Your task to perform on an android device: Go to Maps Image 0: 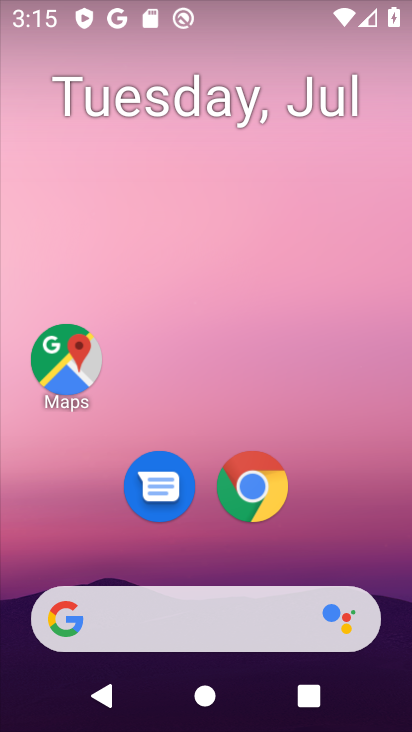
Step 0: click (64, 366)
Your task to perform on an android device: Go to Maps Image 1: 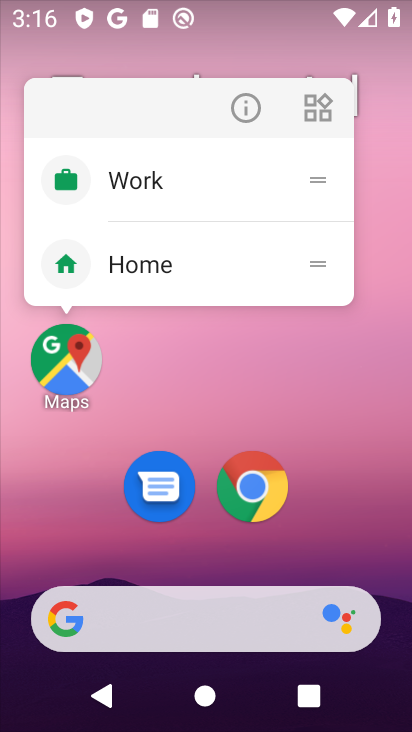
Step 1: click (64, 366)
Your task to perform on an android device: Go to Maps Image 2: 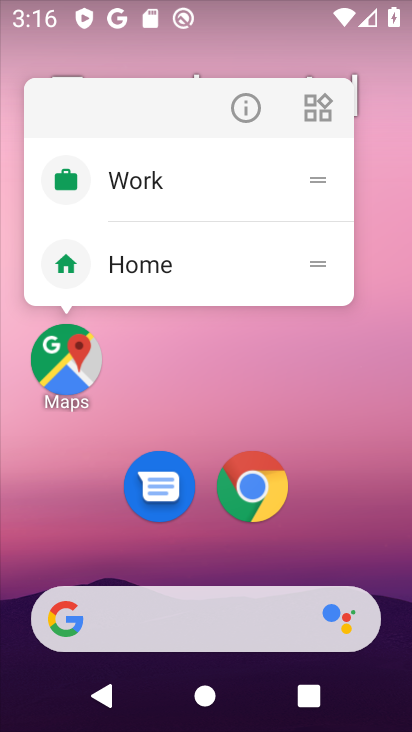
Step 2: click (68, 350)
Your task to perform on an android device: Go to Maps Image 3: 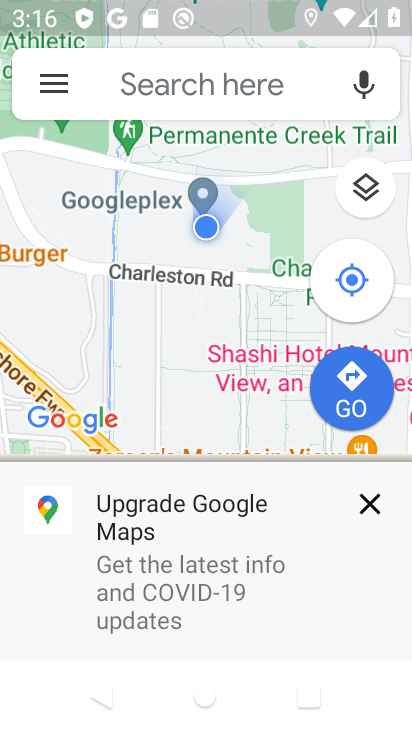
Step 3: task complete